Your task to perform on an android device: Open network settings Image 0: 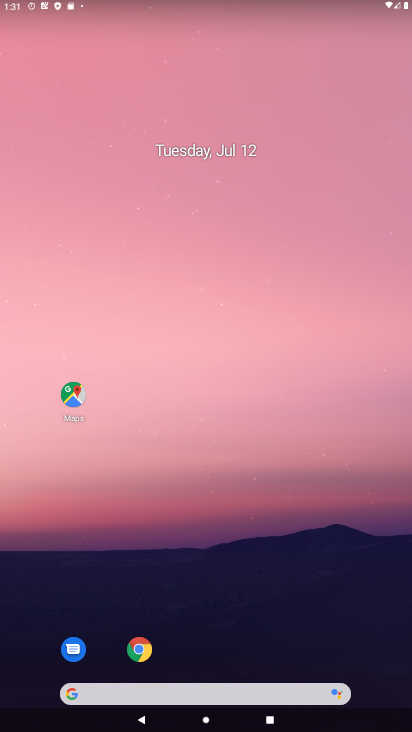
Step 0: drag from (295, 652) to (245, 22)
Your task to perform on an android device: Open network settings Image 1: 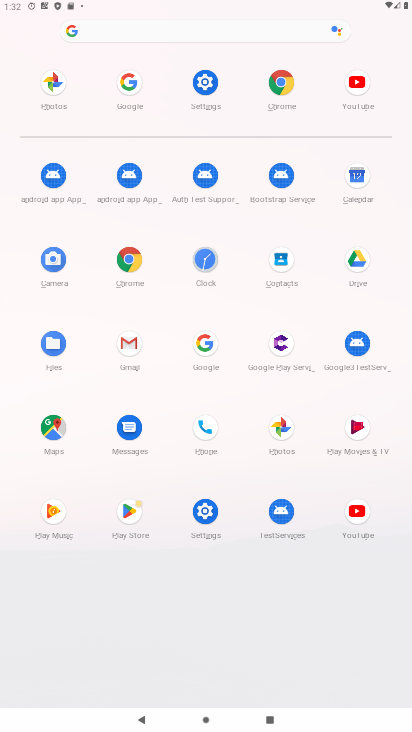
Step 1: click (189, 524)
Your task to perform on an android device: Open network settings Image 2: 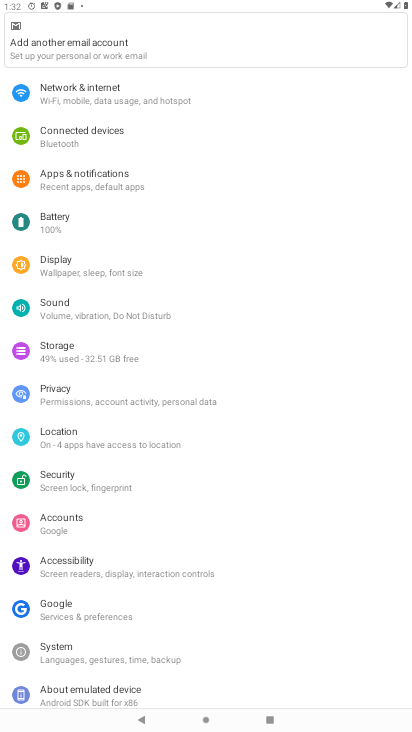
Step 2: click (97, 88)
Your task to perform on an android device: Open network settings Image 3: 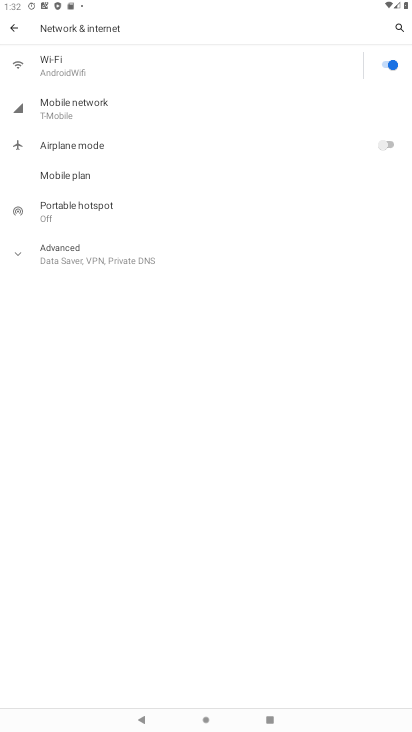
Step 3: task complete